Your task to perform on an android device: Go to accessibility settings Image 0: 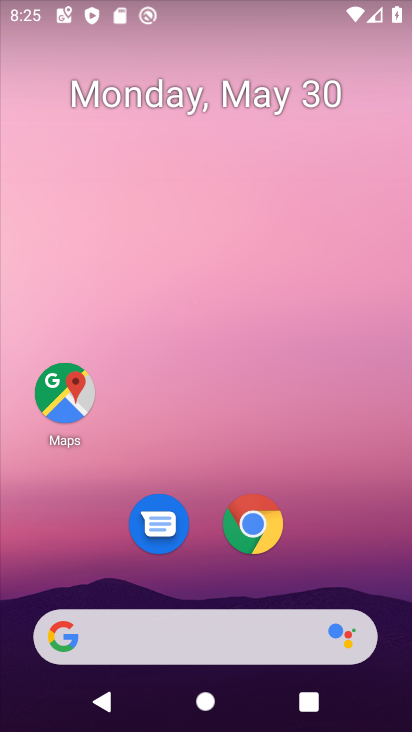
Step 0: drag from (320, 503) to (340, 22)
Your task to perform on an android device: Go to accessibility settings Image 1: 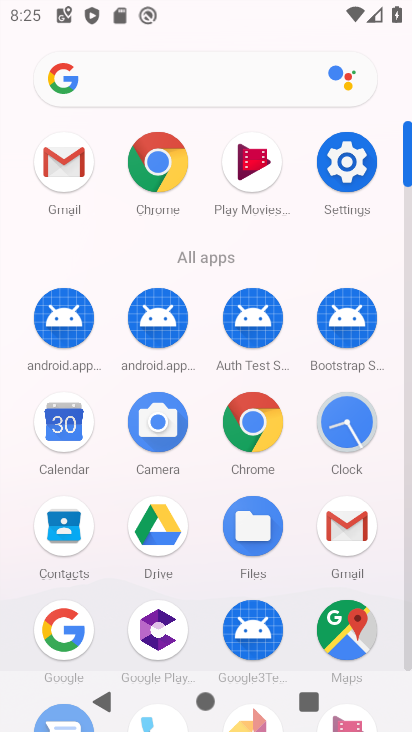
Step 1: click (351, 164)
Your task to perform on an android device: Go to accessibility settings Image 2: 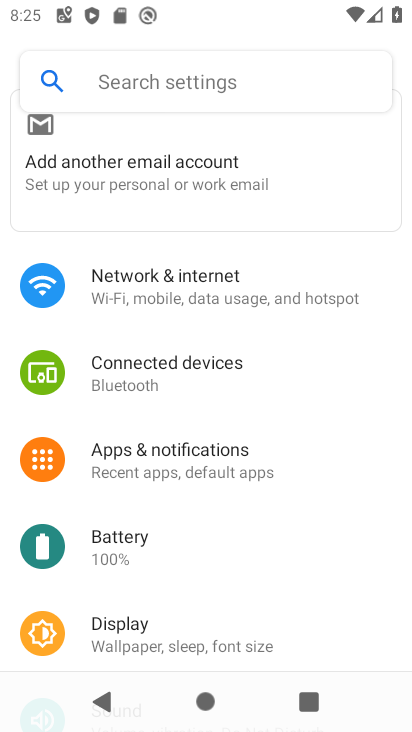
Step 2: drag from (278, 511) to (298, 47)
Your task to perform on an android device: Go to accessibility settings Image 3: 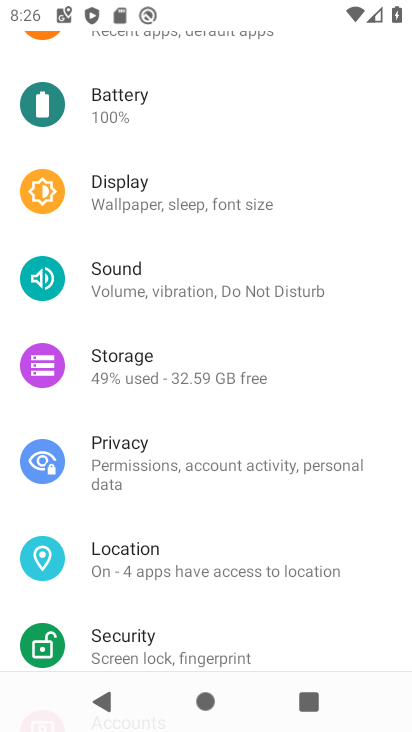
Step 3: drag from (204, 494) to (212, 89)
Your task to perform on an android device: Go to accessibility settings Image 4: 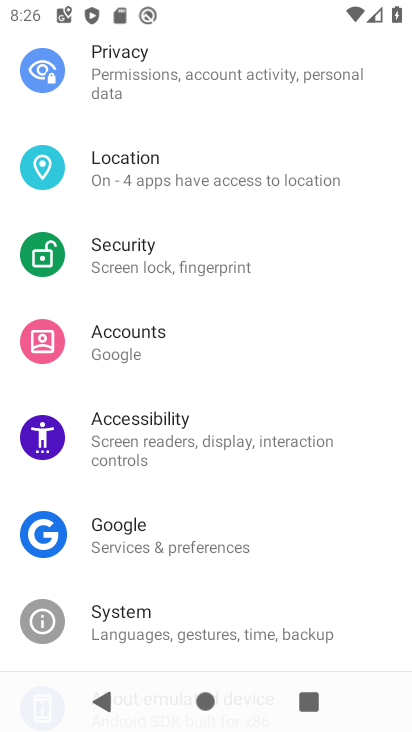
Step 4: click (175, 441)
Your task to perform on an android device: Go to accessibility settings Image 5: 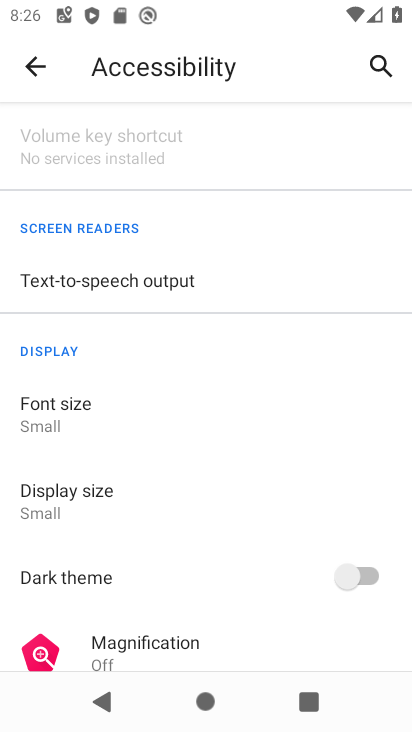
Step 5: task complete